Your task to perform on an android device: toggle pop-ups in chrome Image 0: 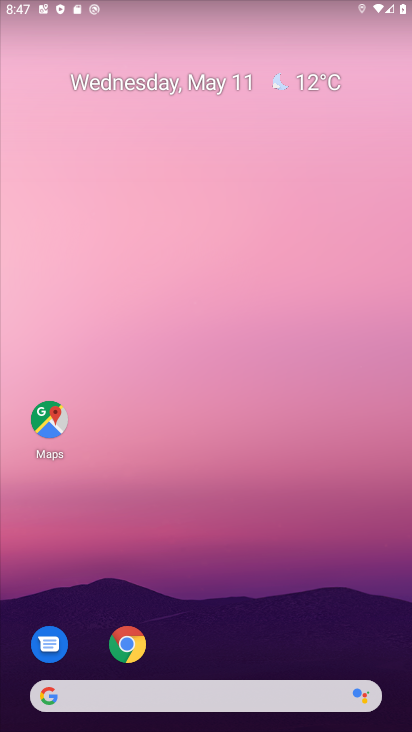
Step 0: click (130, 655)
Your task to perform on an android device: toggle pop-ups in chrome Image 1: 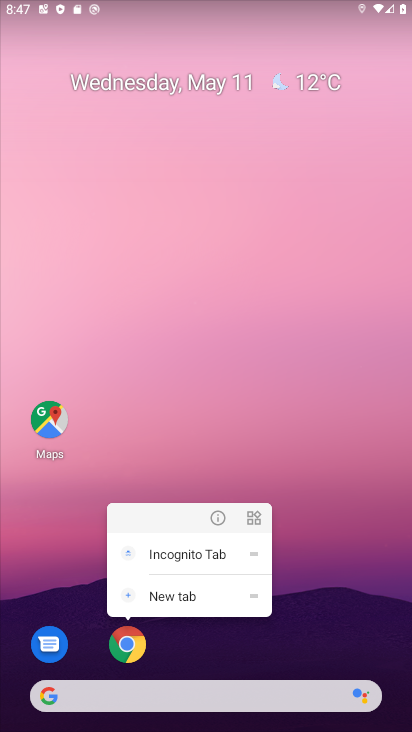
Step 1: click (134, 649)
Your task to perform on an android device: toggle pop-ups in chrome Image 2: 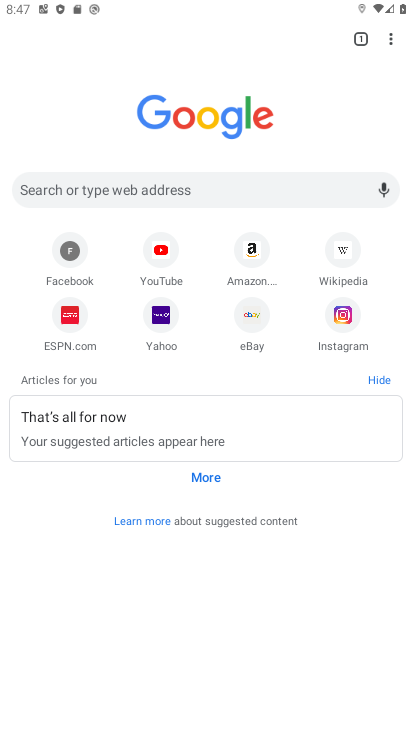
Step 2: click (392, 40)
Your task to perform on an android device: toggle pop-ups in chrome Image 3: 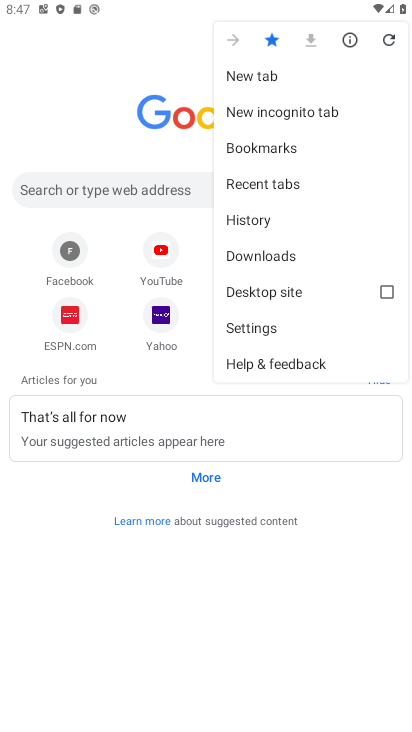
Step 3: click (263, 324)
Your task to perform on an android device: toggle pop-ups in chrome Image 4: 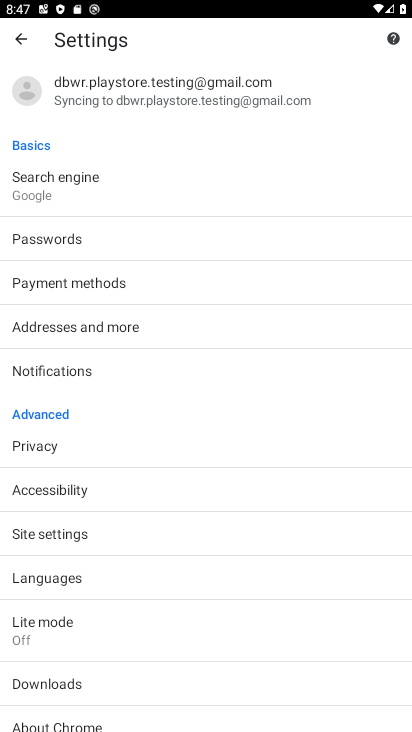
Step 4: click (62, 538)
Your task to perform on an android device: toggle pop-ups in chrome Image 5: 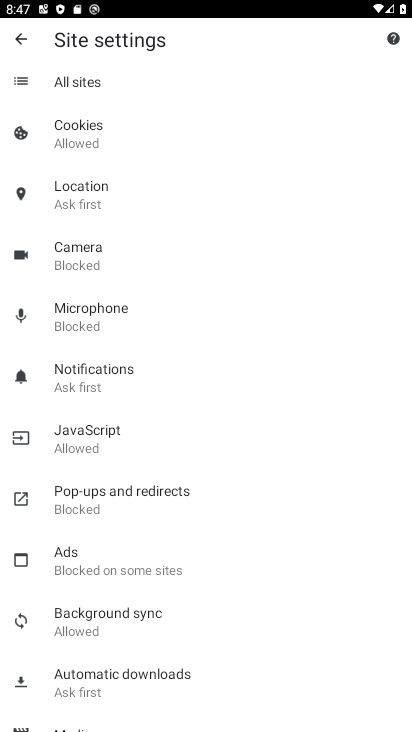
Step 5: click (124, 491)
Your task to perform on an android device: toggle pop-ups in chrome Image 6: 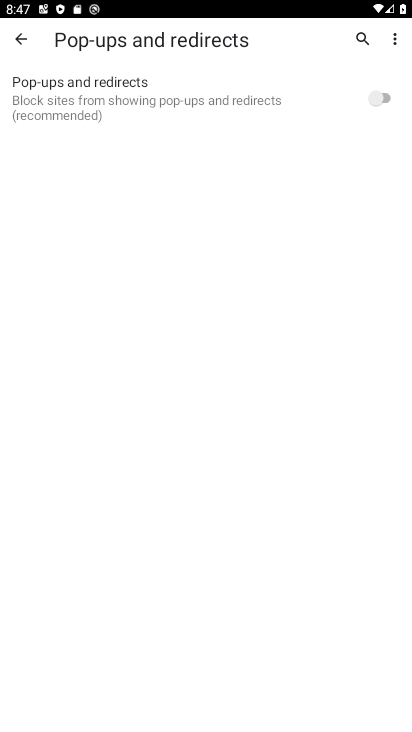
Step 6: click (379, 97)
Your task to perform on an android device: toggle pop-ups in chrome Image 7: 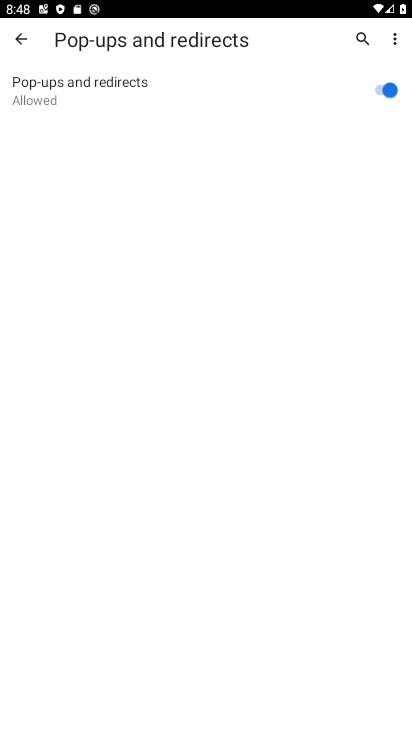
Step 7: task complete